Your task to perform on an android device: Open ESPN.com Image 0: 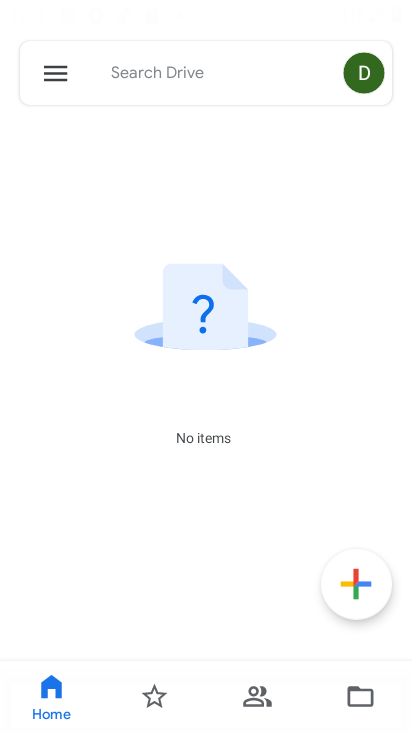
Step 0: press home button
Your task to perform on an android device: Open ESPN.com Image 1: 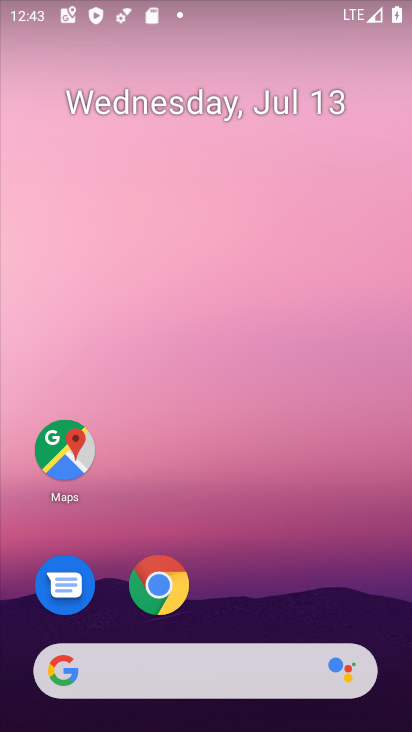
Step 1: click (143, 582)
Your task to perform on an android device: Open ESPN.com Image 2: 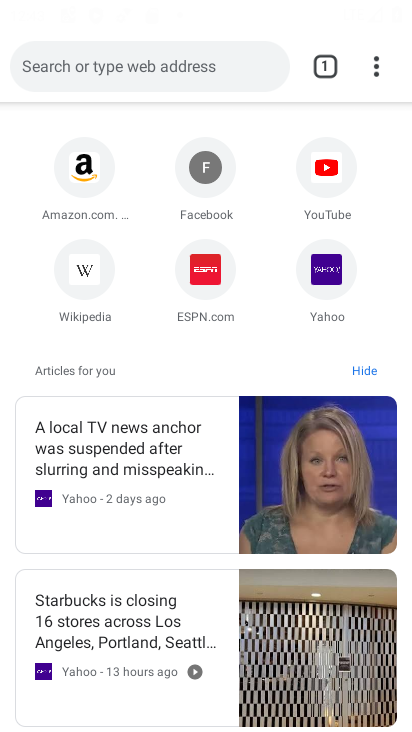
Step 2: click (202, 292)
Your task to perform on an android device: Open ESPN.com Image 3: 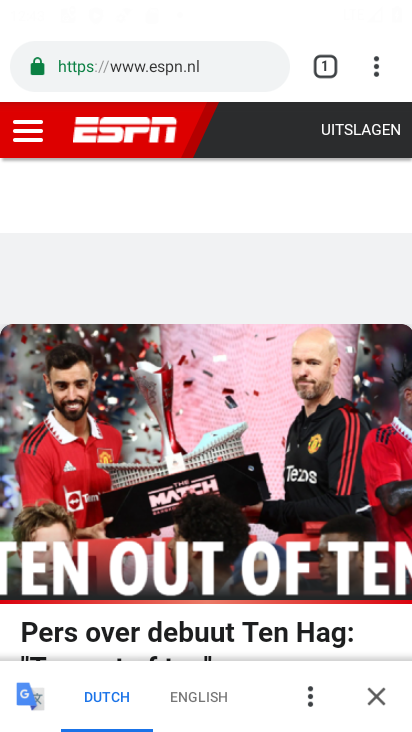
Step 3: task complete